Your task to perform on an android device: check data usage Image 0: 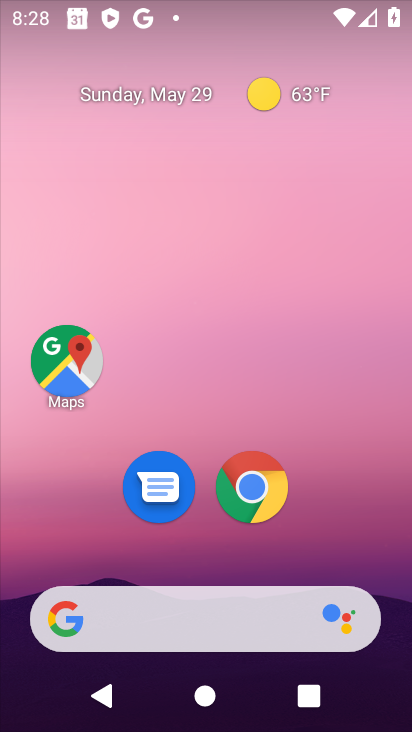
Step 0: drag from (336, 550) to (283, 148)
Your task to perform on an android device: check data usage Image 1: 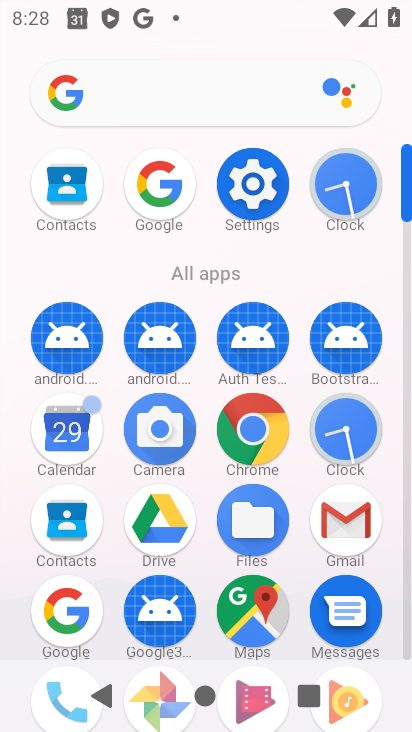
Step 1: click (251, 183)
Your task to perform on an android device: check data usage Image 2: 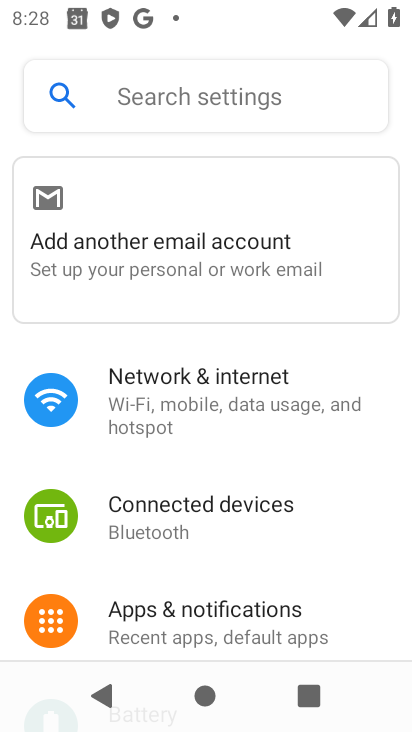
Step 2: drag from (141, 584) to (146, 450)
Your task to perform on an android device: check data usage Image 3: 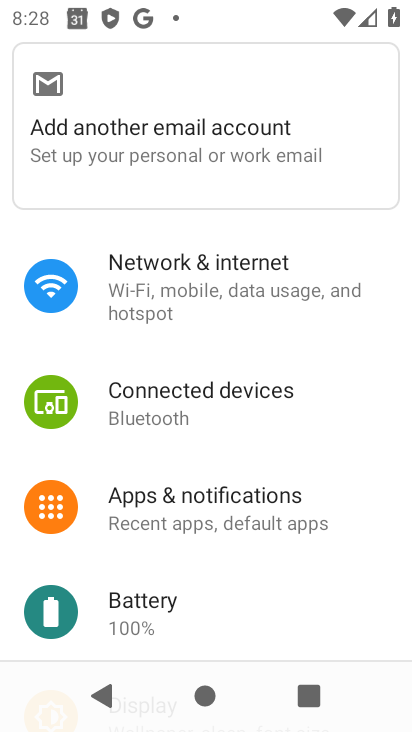
Step 3: drag from (141, 571) to (183, 486)
Your task to perform on an android device: check data usage Image 4: 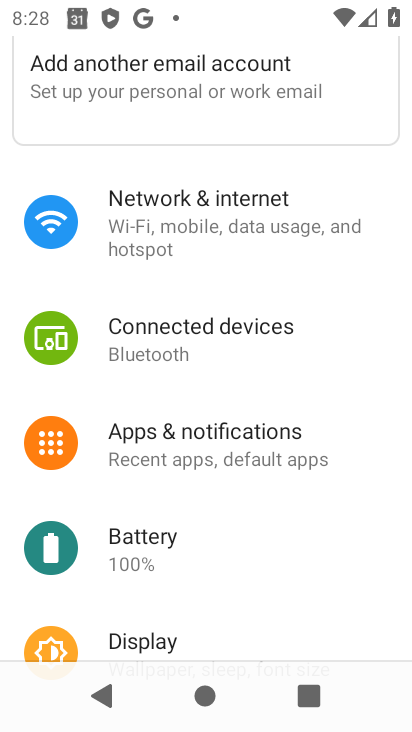
Step 4: click (229, 226)
Your task to perform on an android device: check data usage Image 5: 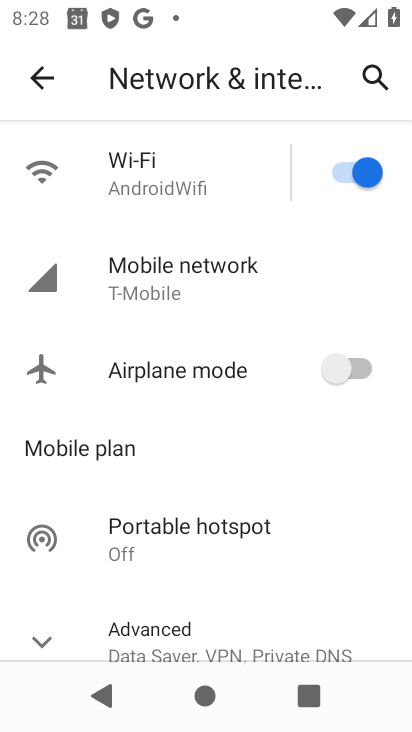
Step 5: click (181, 263)
Your task to perform on an android device: check data usage Image 6: 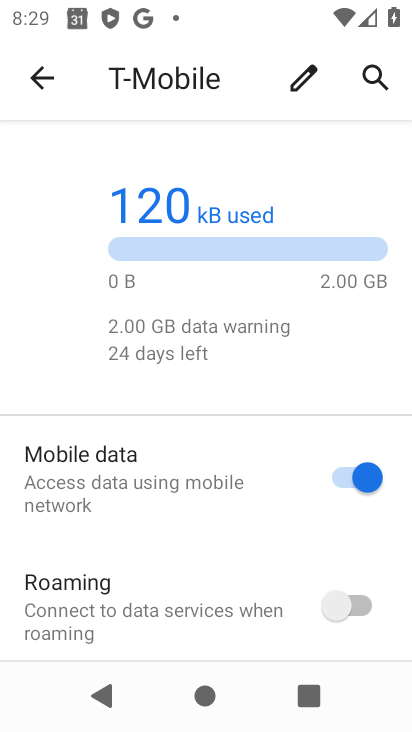
Step 6: task complete